Your task to perform on an android device: turn off javascript in the chrome app Image 0: 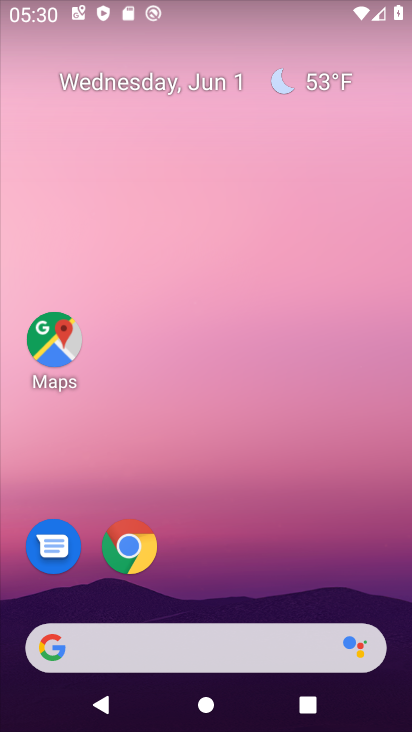
Step 0: click (132, 553)
Your task to perform on an android device: turn off javascript in the chrome app Image 1: 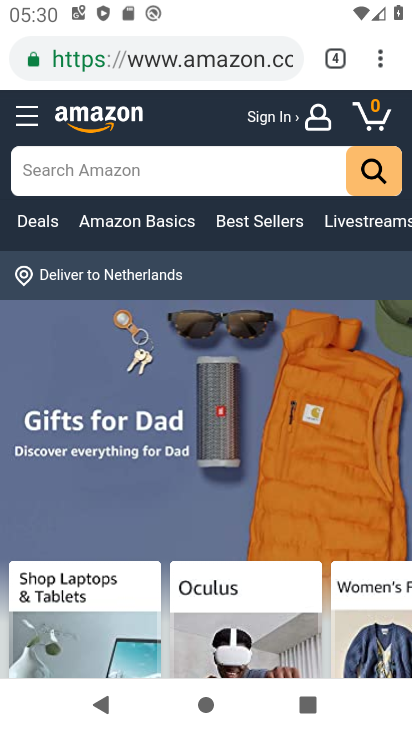
Step 1: click (381, 52)
Your task to perform on an android device: turn off javascript in the chrome app Image 2: 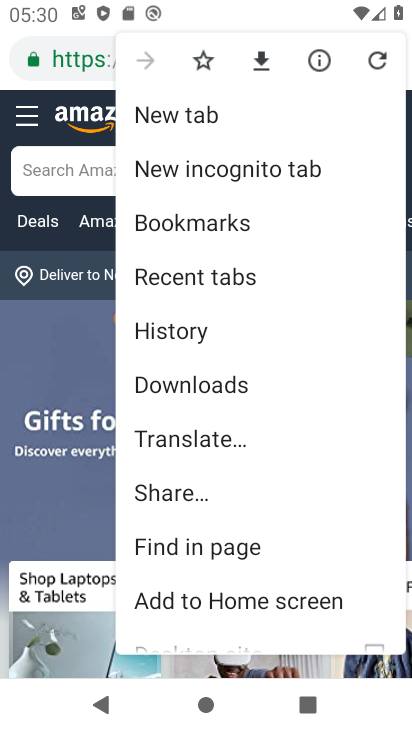
Step 2: drag from (246, 479) to (241, 282)
Your task to perform on an android device: turn off javascript in the chrome app Image 3: 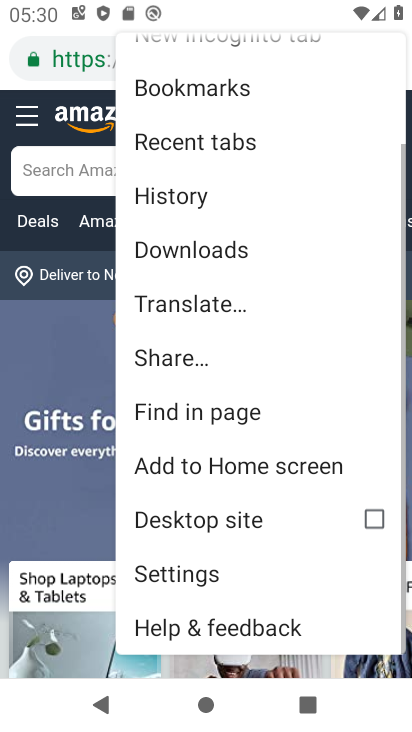
Step 3: click (190, 568)
Your task to perform on an android device: turn off javascript in the chrome app Image 4: 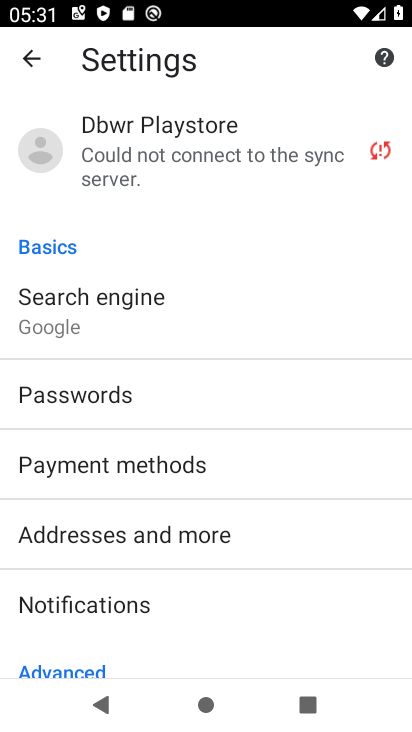
Step 4: drag from (180, 582) to (161, 267)
Your task to perform on an android device: turn off javascript in the chrome app Image 5: 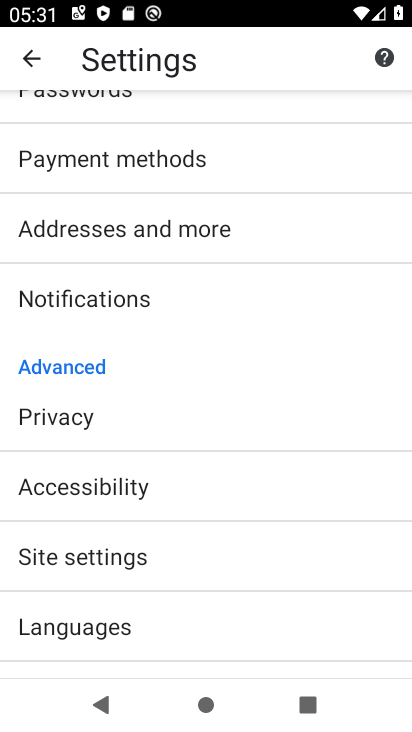
Step 5: click (104, 554)
Your task to perform on an android device: turn off javascript in the chrome app Image 6: 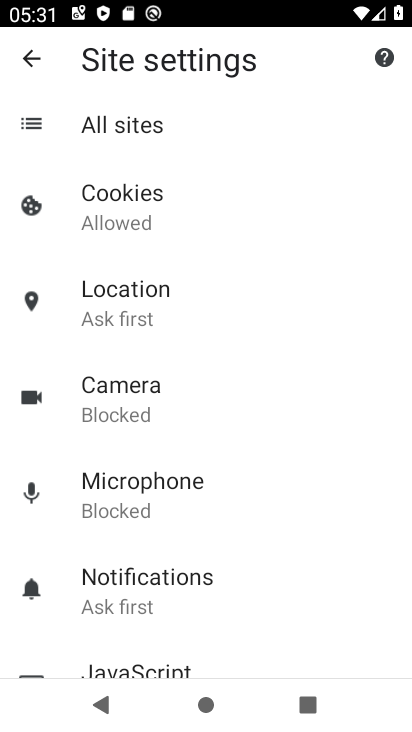
Step 6: drag from (218, 514) to (218, 285)
Your task to perform on an android device: turn off javascript in the chrome app Image 7: 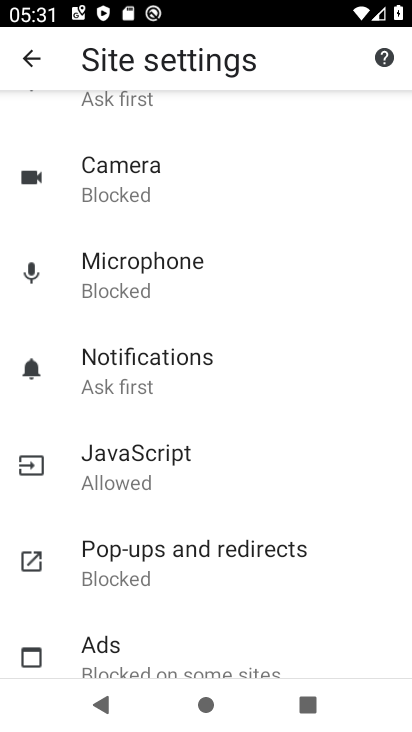
Step 7: click (122, 451)
Your task to perform on an android device: turn off javascript in the chrome app Image 8: 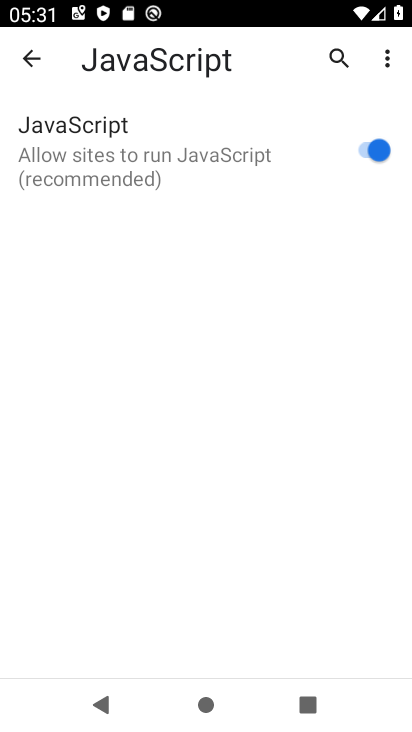
Step 8: click (366, 142)
Your task to perform on an android device: turn off javascript in the chrome app Image 9: 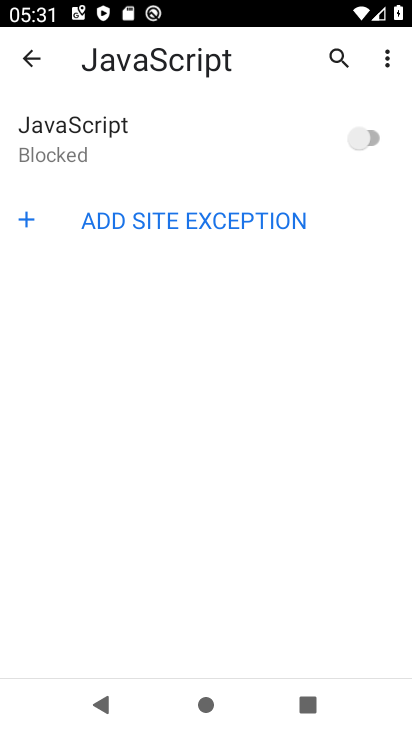
Step 9: task complete